Your task to perform on an android device: turn off javascript in the chrome app Image 0: 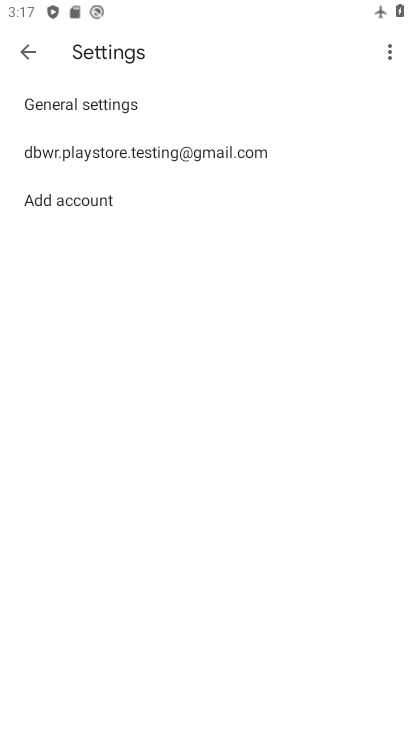
Step 0: press home button
Your task to perform on an android device: turn off javascript in the chrome app Image 1: 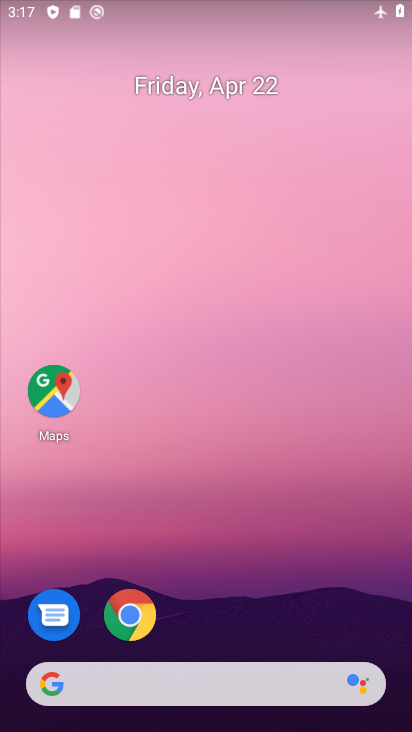
Step 1: click (128, 620)
Your task to perform on an android device: turn off javascript in the chrome app Image 2: 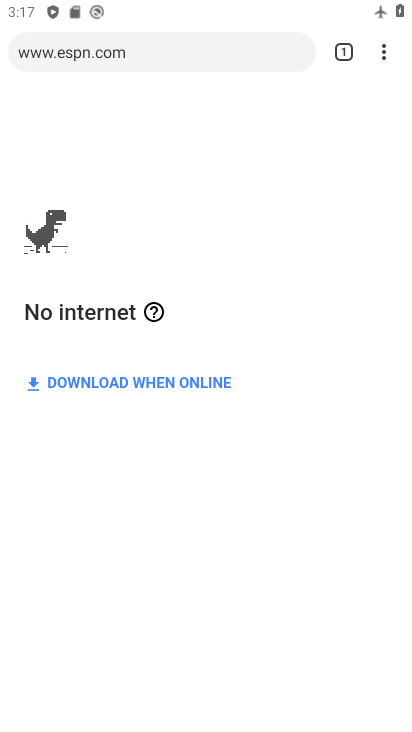
Step 2: click (383, 53)
Your task to perform on an android device: turn off javascript in the chrome app Image 3: 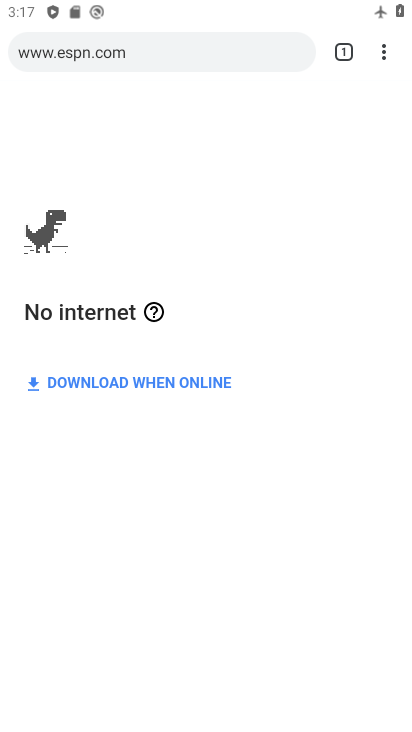
Step 3: click (382, 44)
Your task to perform on an android device: turn off javascript in the chrome app Image 4: 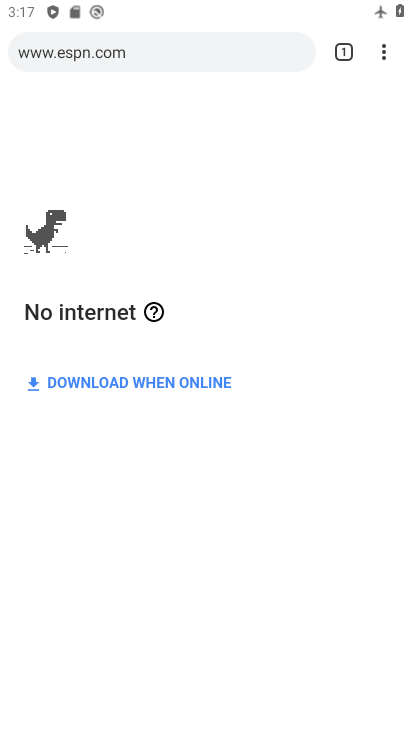
Step 4: click (382, 43)
Your task to perform on an android device: turn off javascript in the chrome app Image 5: 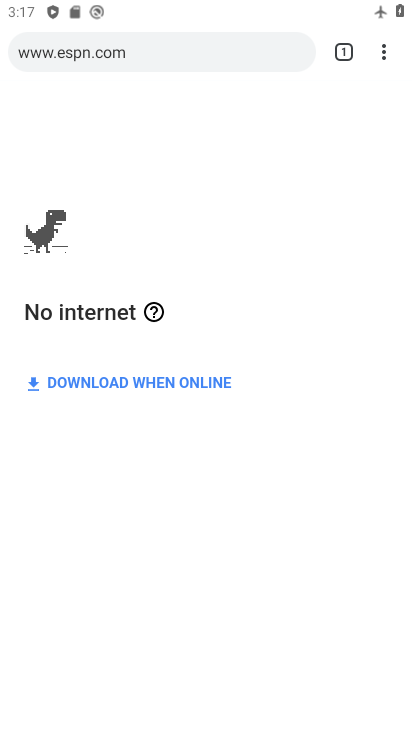
Step 5: click (385, 54)
Your task to perform on an android device: turn off javascript in the chrome app Image 6: 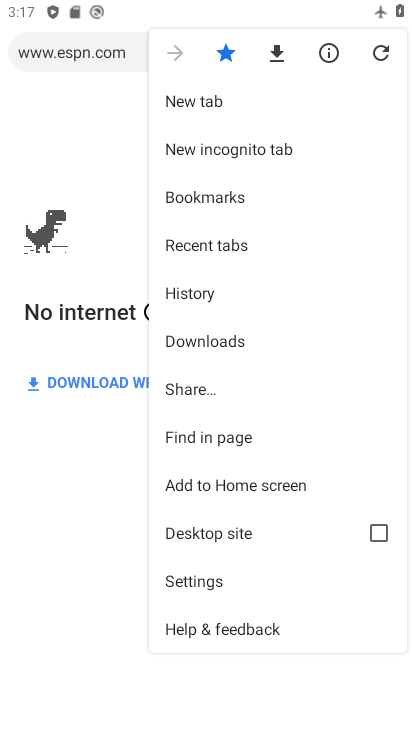
Step 6: click (207, 584)
Your task to perform on an android device: turn off javascript in the chrome app Image 7: 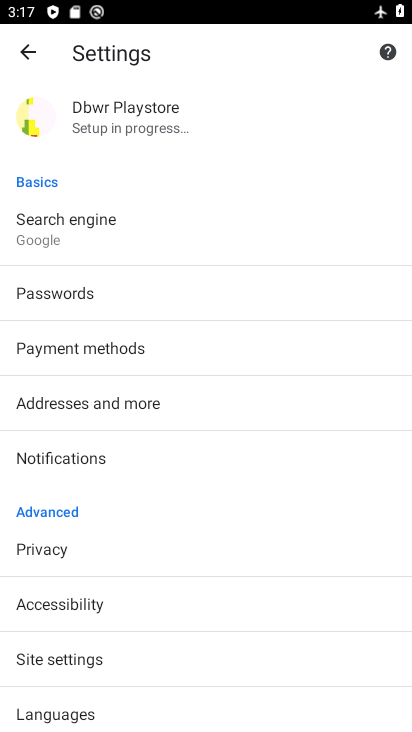
Step 7: click (99, 652)
Your task to perform on an android device: turn off javascript in the chrome app Image 8: 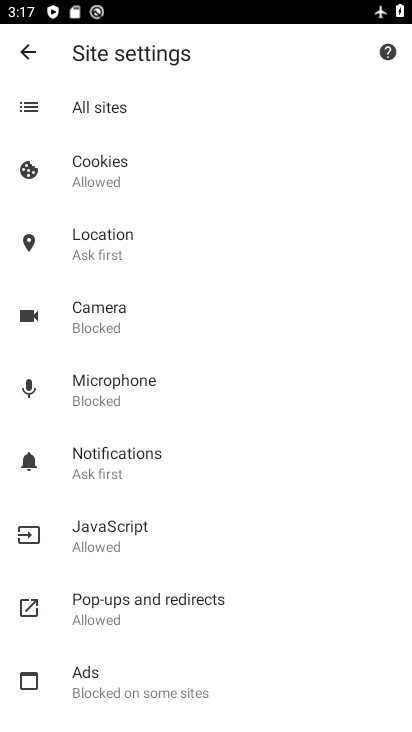
Step 8: click (124, 530)
Your task to perform on an android device: turn off javascript in the chrome app Image 9: 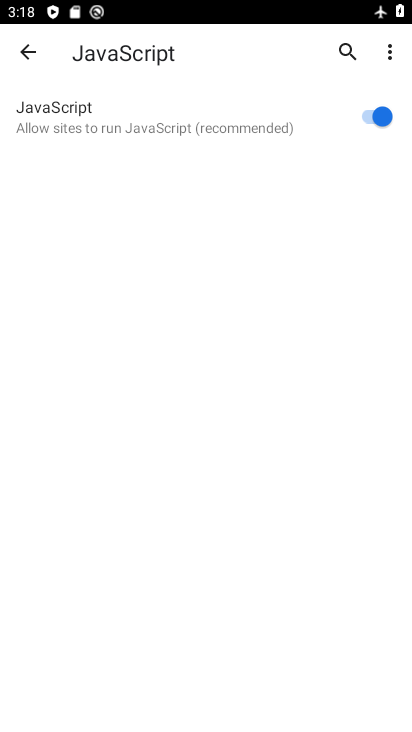
Step 9: click (372, 110)
Your task to perform on an android device: turn off javascript in the chrome app Image 10: 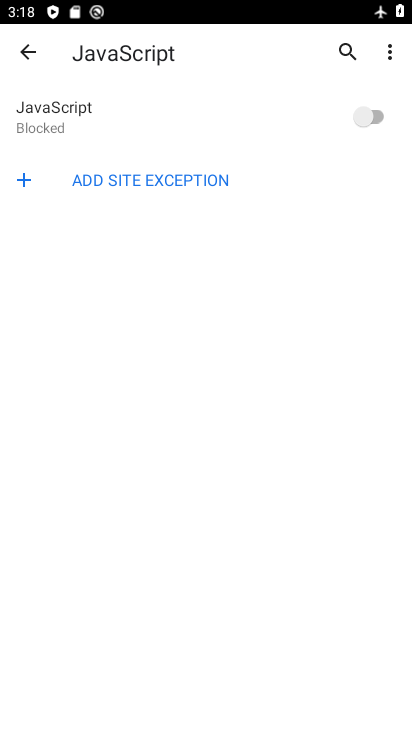
Step 10: task complete